Your task to perform on an android device: turn on showing notifications on the lock screen Image 0: 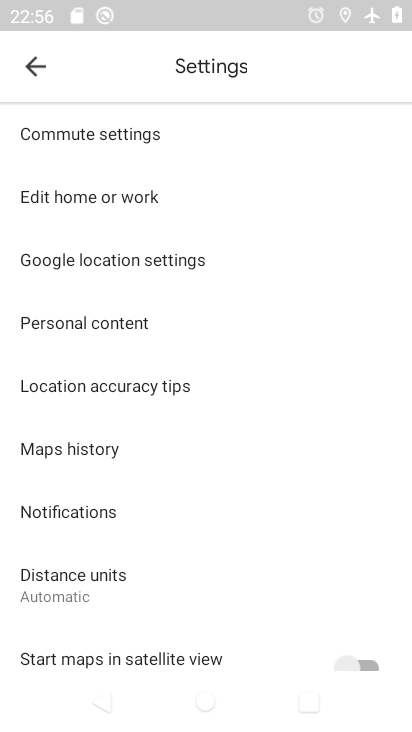
Step 0: press home button
Your task to perform on an android device: turn on showing notifications on the lock screen Image 1: 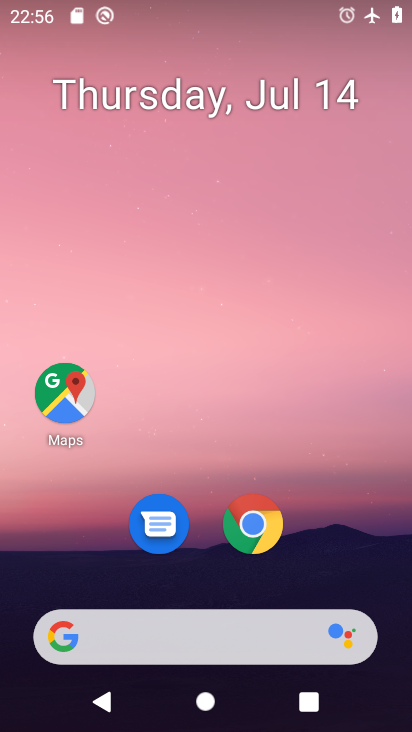
Step 1: drag from (211, 451) to (238, 12)
Your task to perform on an android device: turn on showing notifications on the lock screen Image 2: 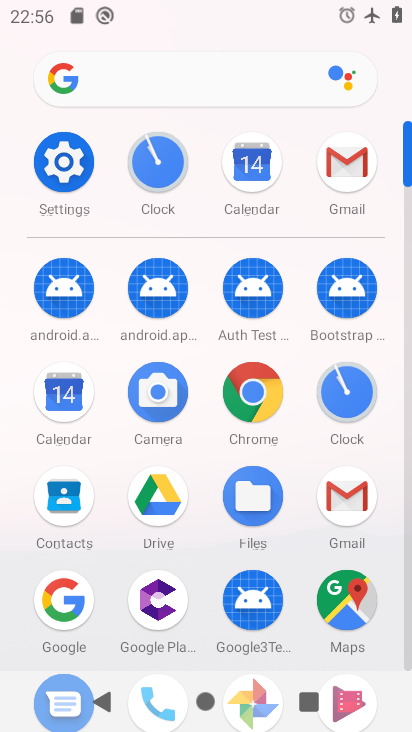
Step 2: click (65, 160)
Your task to perform on an android device: turn on showing notifications on the lock screen Image 3: 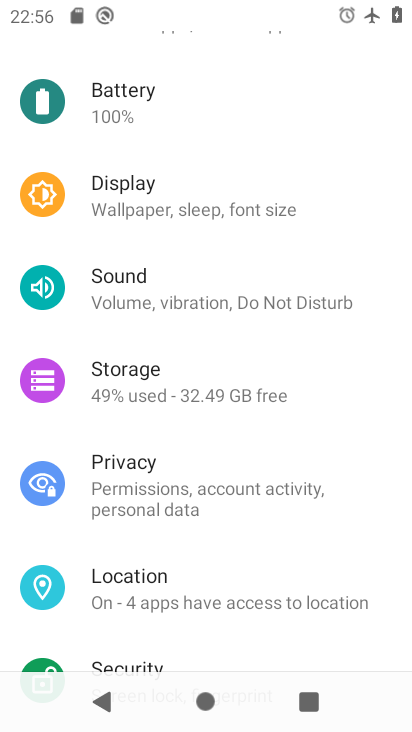
Step 3: drag from (272, 266) to (270, 575)
Your task to perform on an android device: turn on showing notifications on the lock screen Image 4: 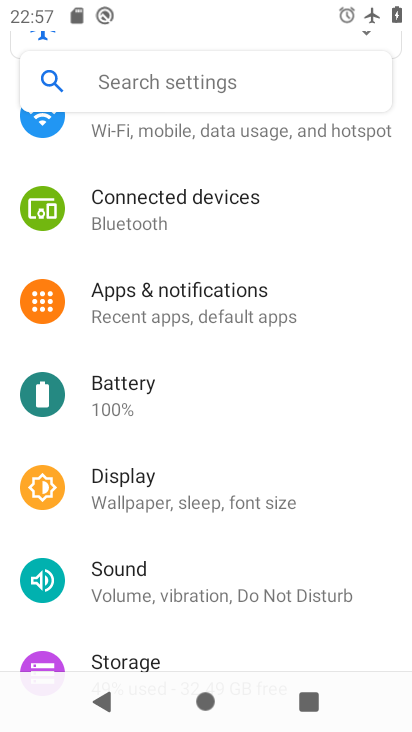
Step 4: click (243, 300)
Your task to perform on an android device: turn on showing notifications on the lock screen Image 5: 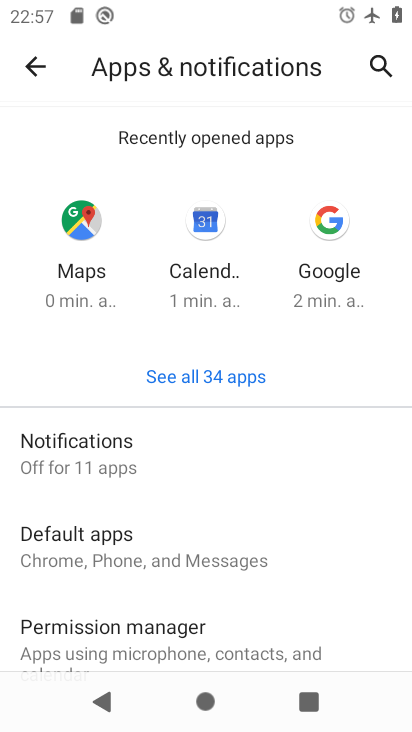
Step 5: click (106, 449)
Your task to perform on an android device: turn on showing notifications on the lock screen Image 6: 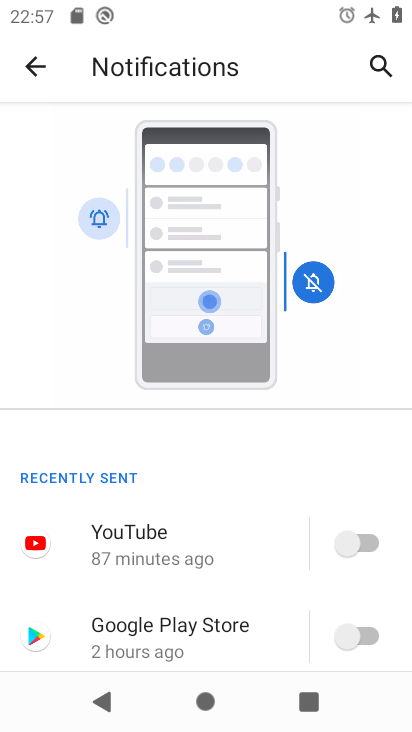
Step 6: drag from (204, 494) to (229, 136)
Your task to perform on an android device: turn on showing notifications on the lock screen Image 7: 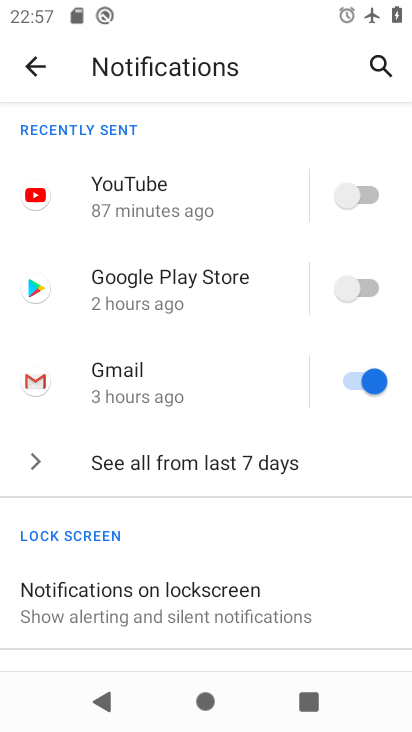
Step 7: click (200, 592)
Your task to perform on an android device: turn on showing notifications on the lock screen Image 8: 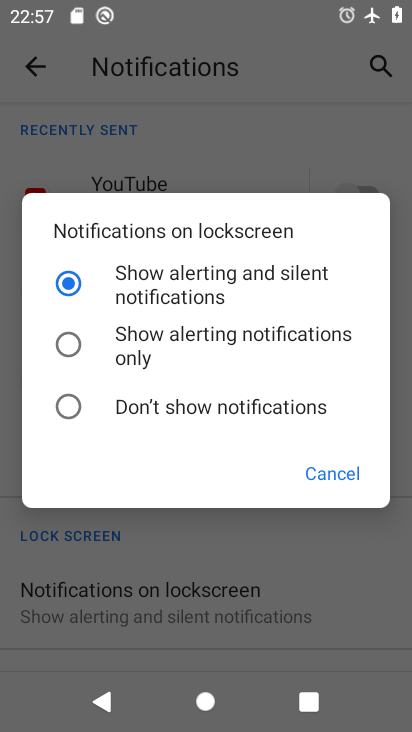
Step 8: click (349, 475)
Your task to perform on an android device: turn on showing notifications on the lock screen Image 9: 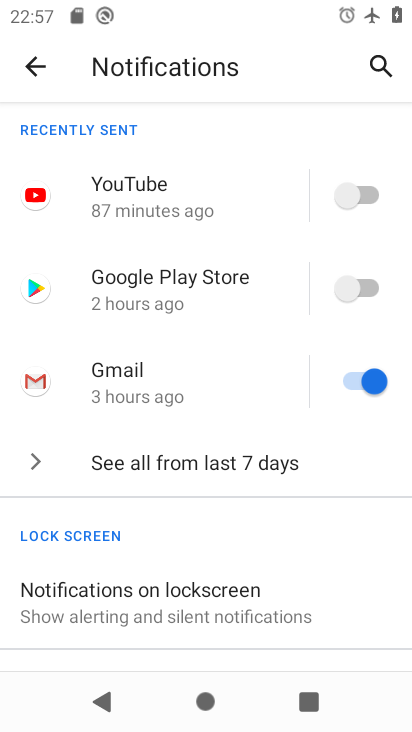
Step 9: task complete